Your task to perform on an android device: Add "logitech g910" to the cart on amazon.com Image 0: 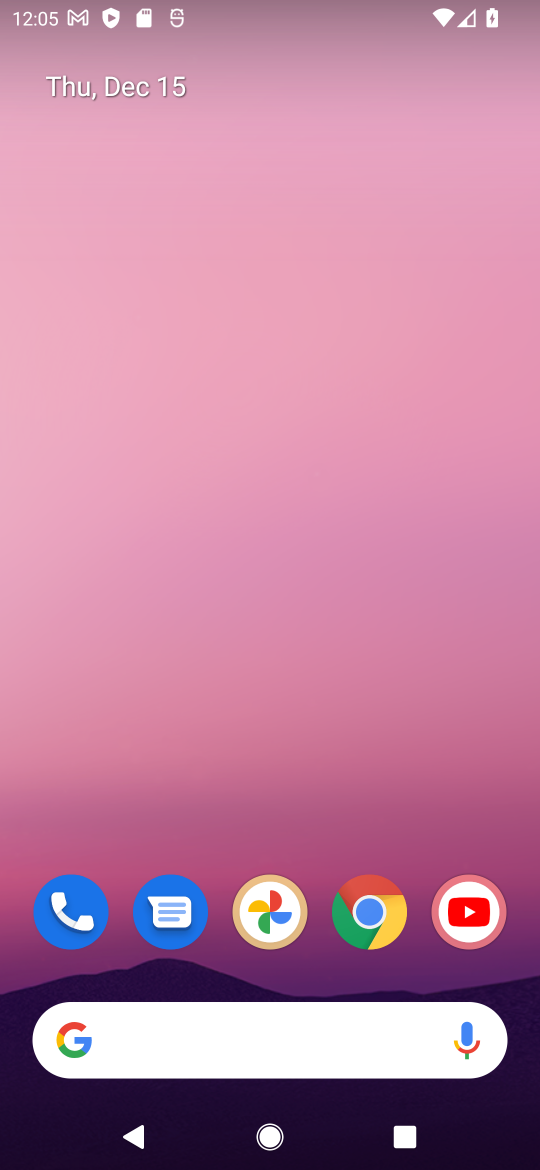
Step 0: drag from (213, 939) to (186, 459)
Your task to perform on an android device: Add "logitech g910" to the cart on amazon.com Image 1: 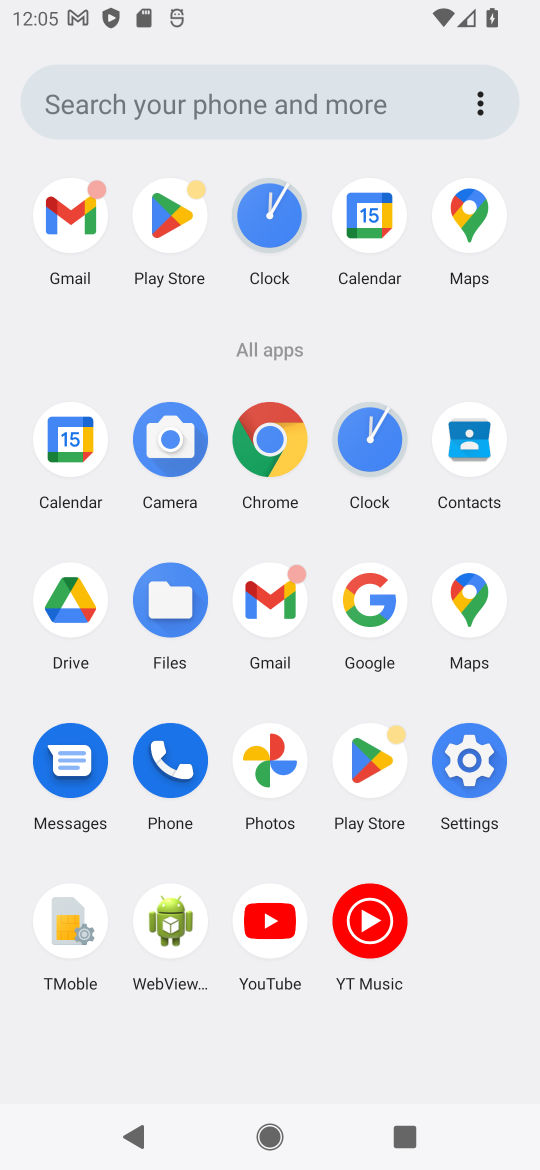
Step 1: click (370, 597)
Your task to perform on an android device: Add "logitech g910" to the cart on amazon.com Image 2: 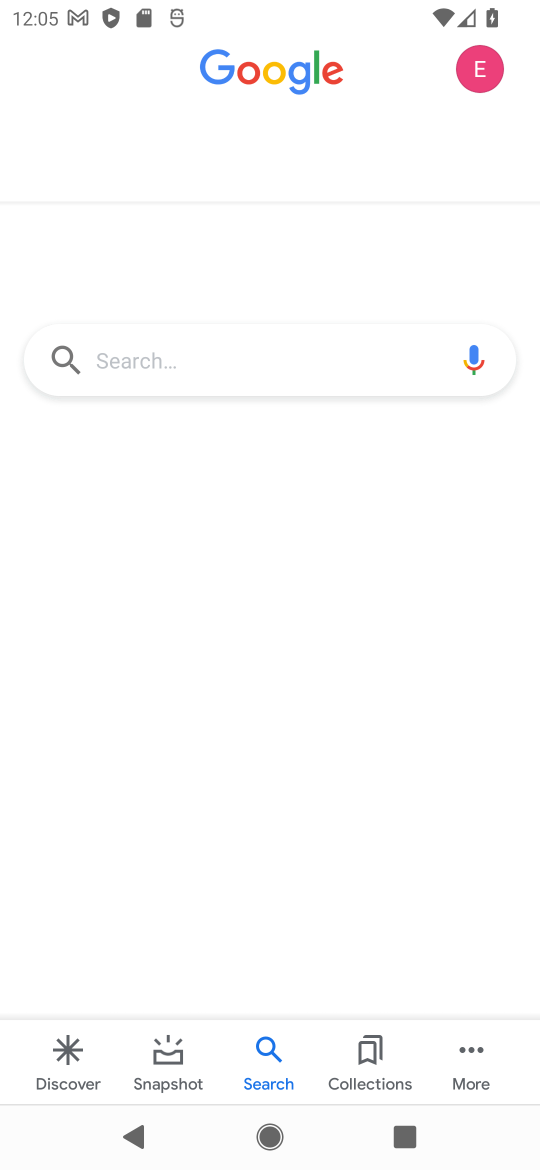
Step 2: click (101, 364)
Your task to perform on an android device: Add "logitech g910" to the cart on amazon.com Image 3: 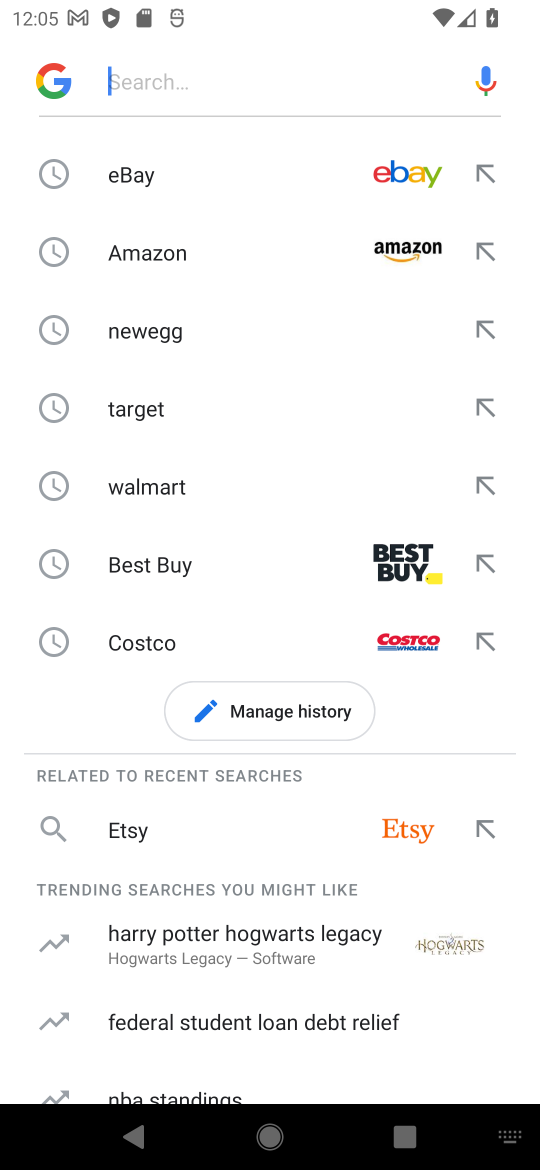
Step 3: click (432, 244)
Your task to perform on an android device: Add "logitech g910" to the cart on amazon.com Image 4: 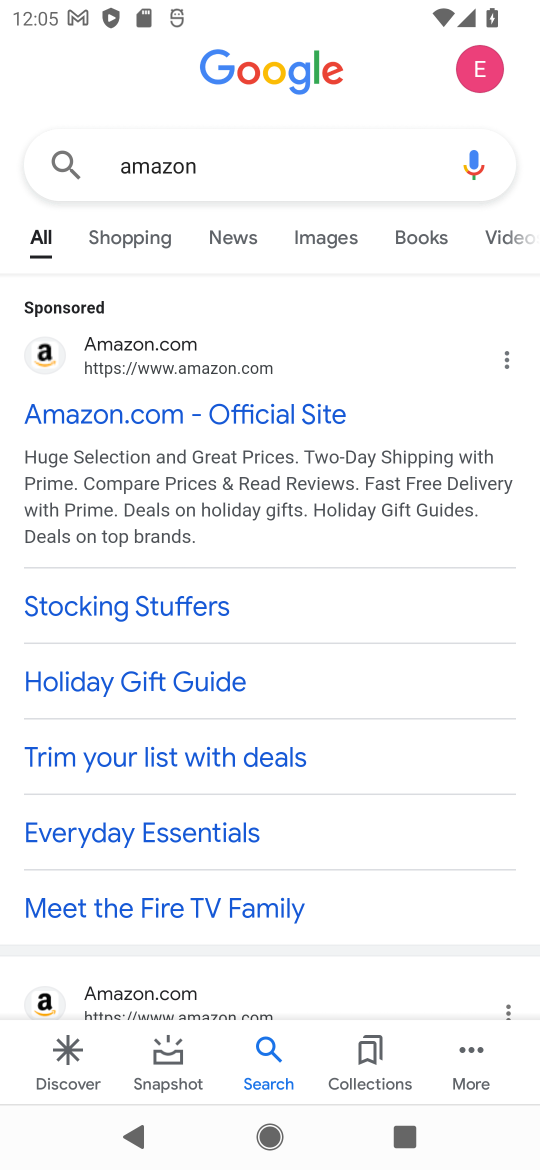
Step 4: click (170, 416)
Your task to perform on an android device: Add "logitech g910" to the cart on amazon.com Image 5: 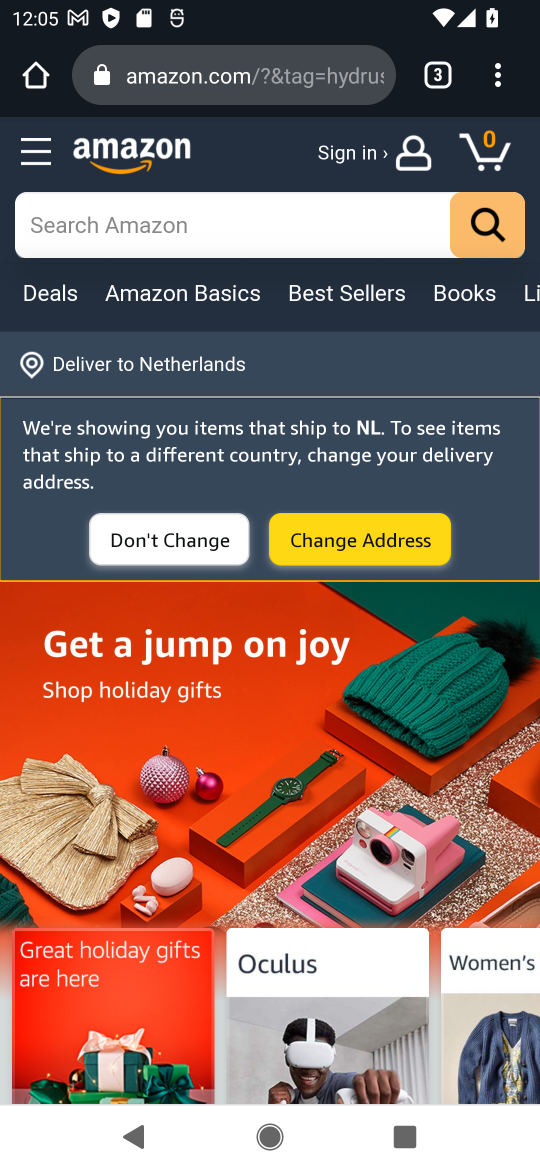
Step 5: click (119, 237)
Your task to perform on an android device: Add "logitech g910" to the cart on amazon.com Image 6: 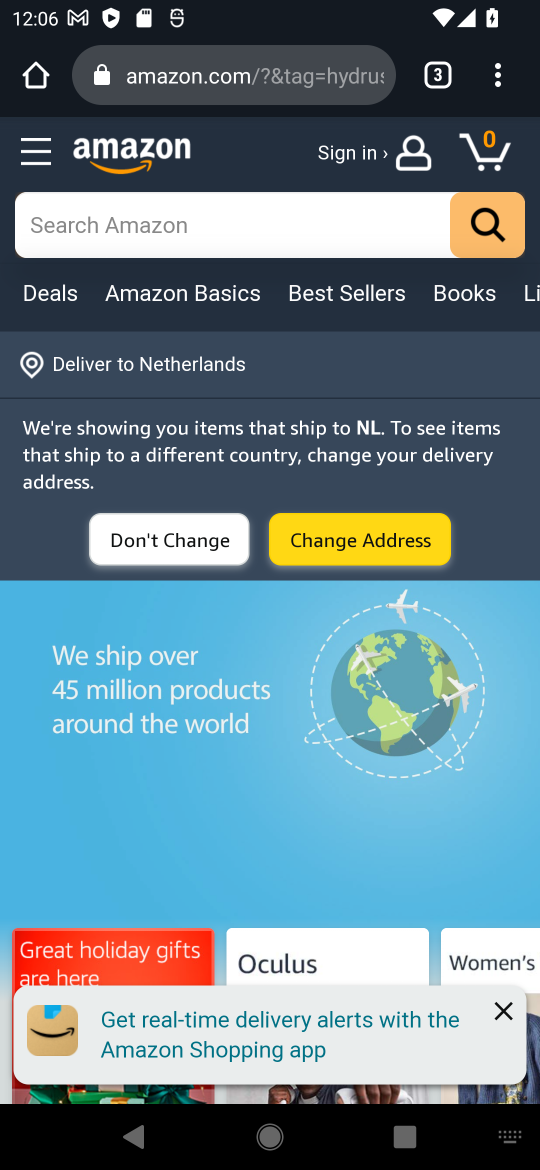
Step 6: type "logitech g910"
Your task to perform on an android device: Add "logitech g910" to the cart on amazon.com Image 7: 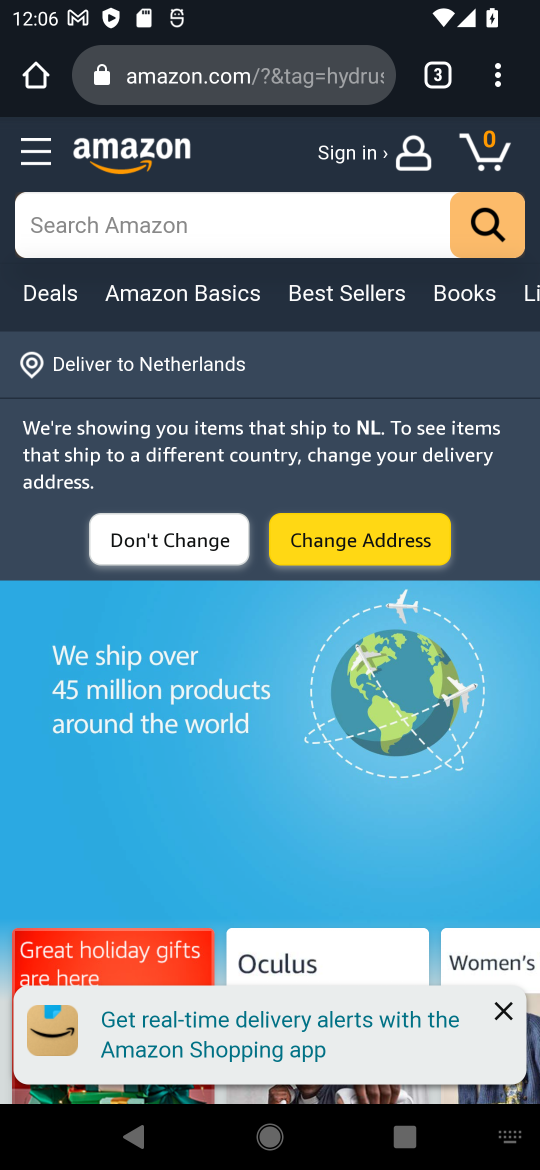
Step 7: click (489, 230)
Your task to perform on an android device: Add "logitech g910" to the cart on amazon.com Image 8: 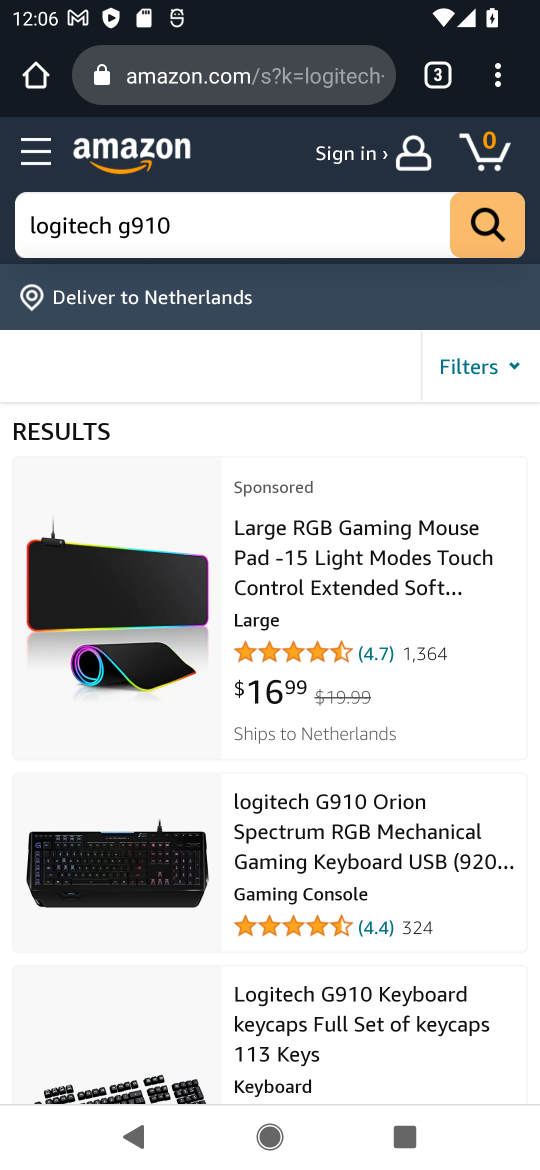
Step 8: click (371, 538)
Your task to perform on an android device: Add "logitech g910" to the cart on amazon.com Image 9: 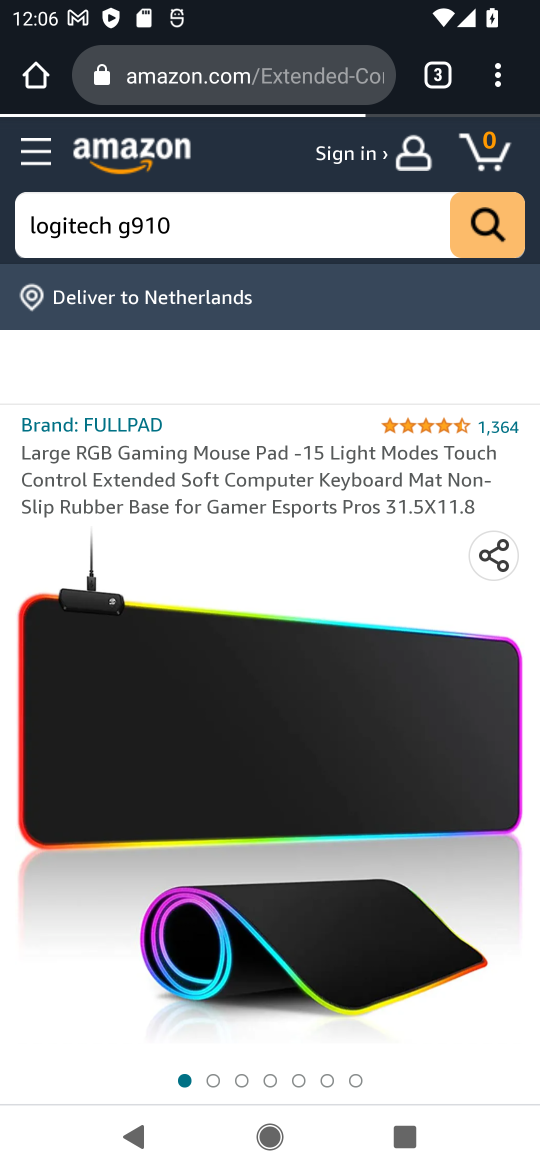
Step 9: drag from (216, 1044) to (214, 574)
Your task to perform on an android device: Add "logitech g910" to the cart on amazon.com Image 10: 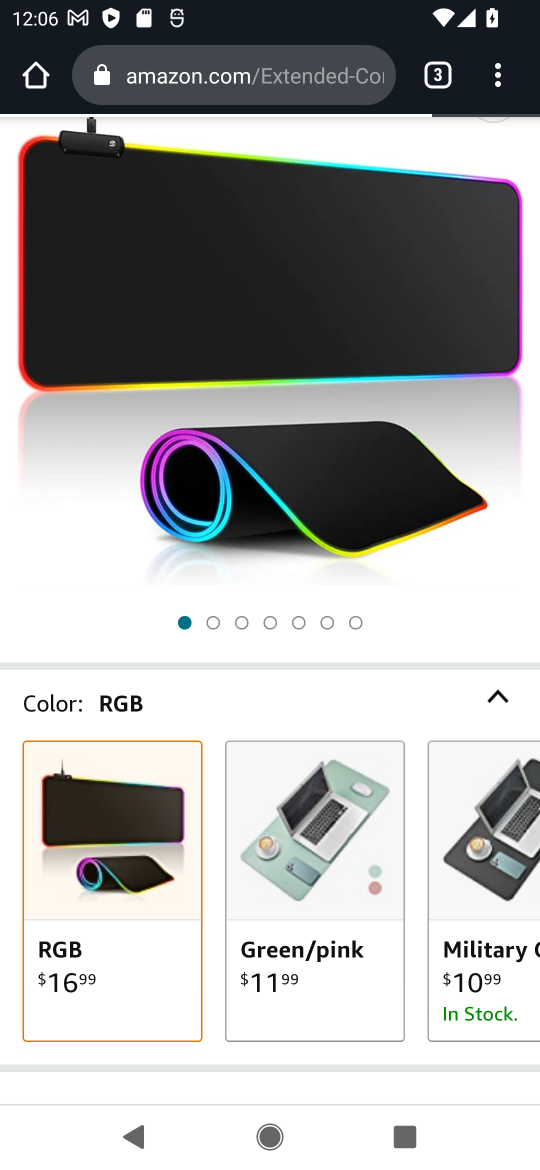
Step 10: drag from (250, 1008) to (243, 589)
Your task to perform on an android device: Add "logitech g910" to the cart on amazon.com Image 11: 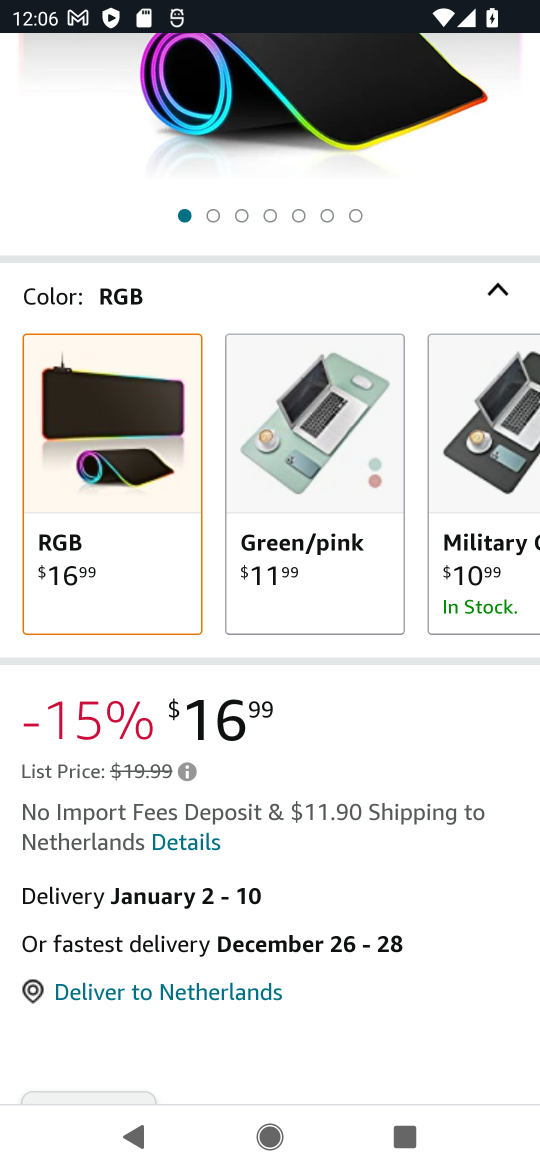
Step 11: drag from (275, 978) to (241, 571)
Your task to perform on an android device: Add "logitech g910" to the cart on amazon.com Image 12: 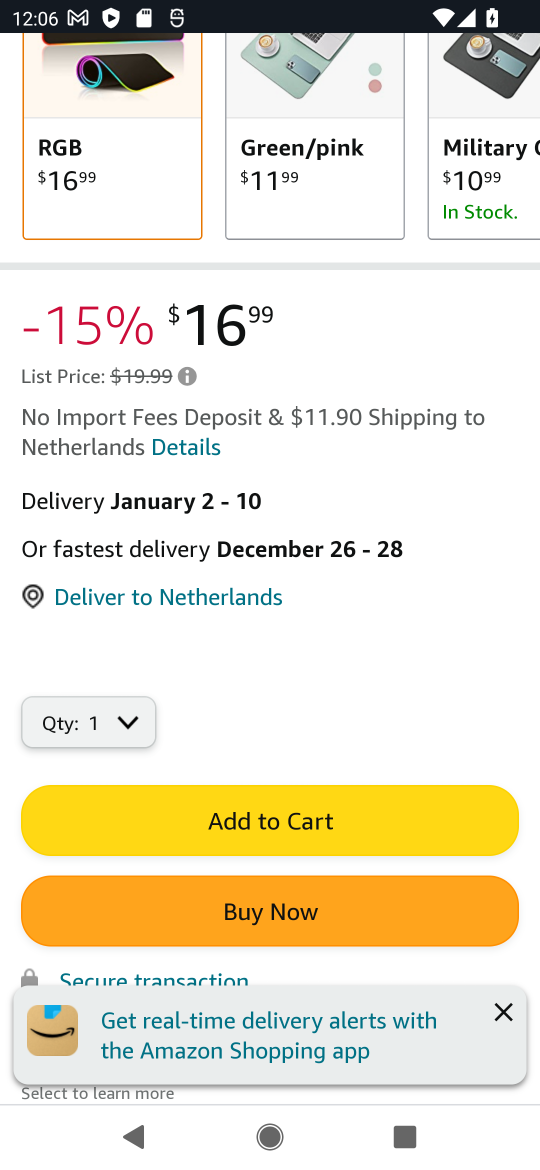
Step 12: click (241, 820)
Your task to perform on an android device: Add "logitech g910" to the cart on amazon.com Image 13: 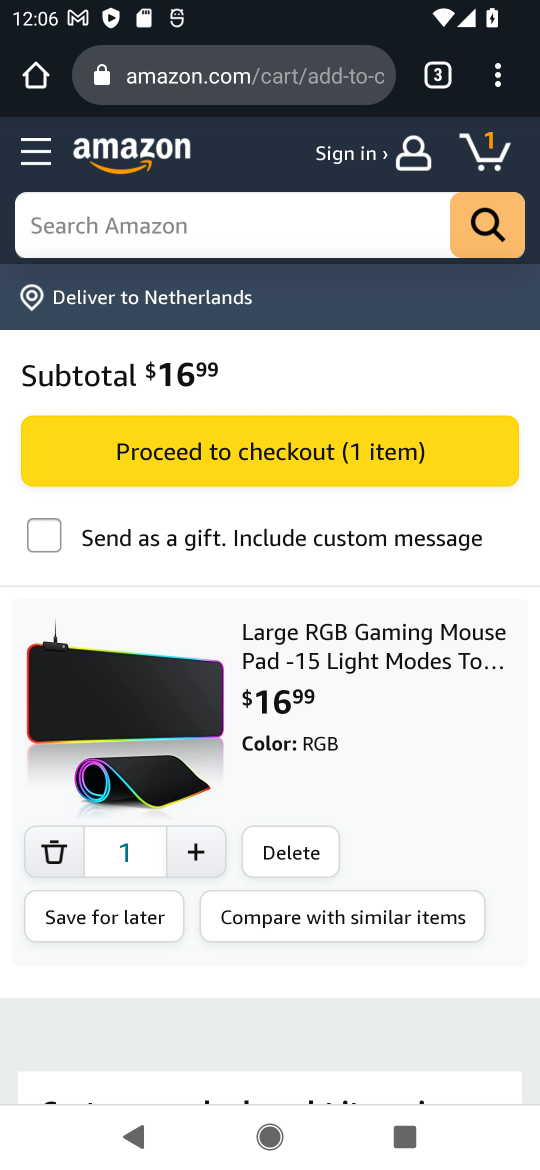
Step 13: task complete